Your task to perform on an android device: Turn off the flashlight Image 0: 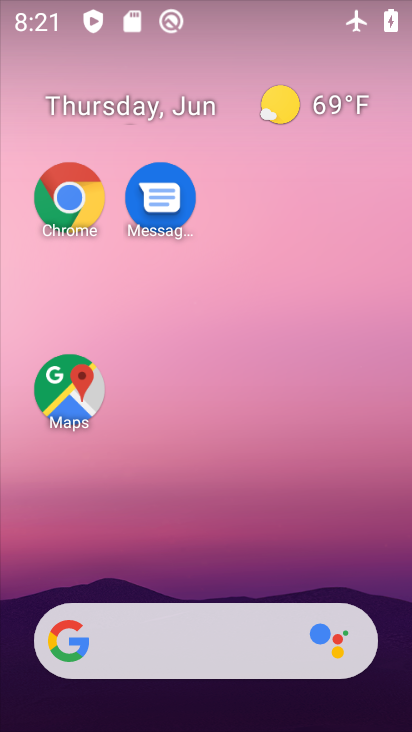
Step 0: drag from (210, 598) to (209, 54)
Your task to perform on an android device: Turn off the flashlight Image 1: 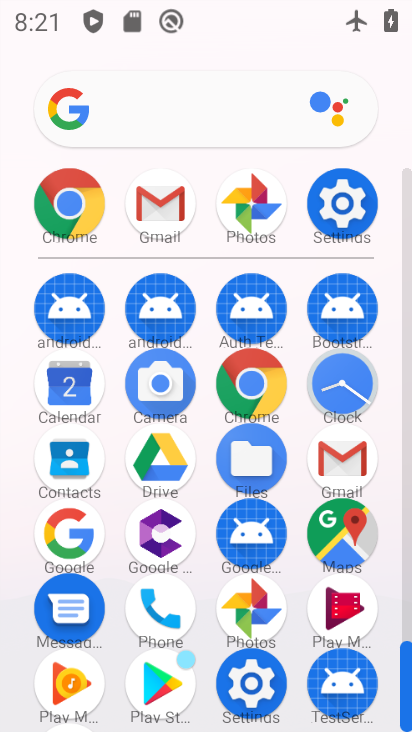
Step 1: click (346, 198)
Your task to perform on an android device: Turn off the flashlight Image 2: 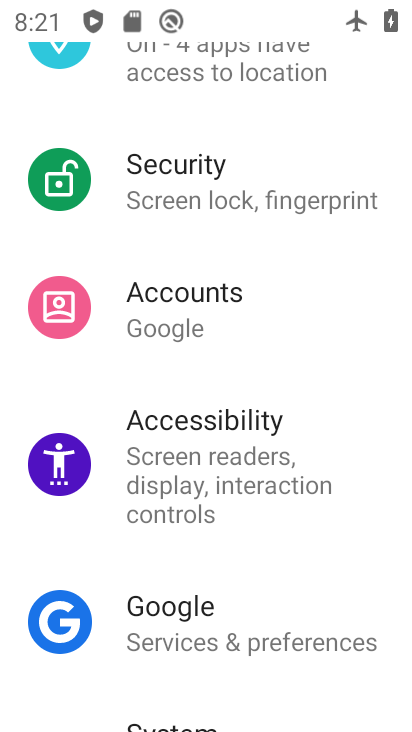
Step 2: task complete